Your task to perform on an android device: turn on bluetooth scan Image 0: 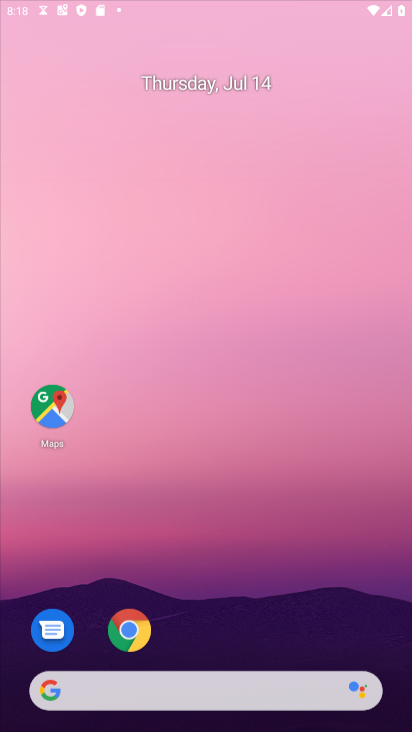
Step 0: press home button
Your task to perform on an android device: turn on bluetooth scan Image 1: 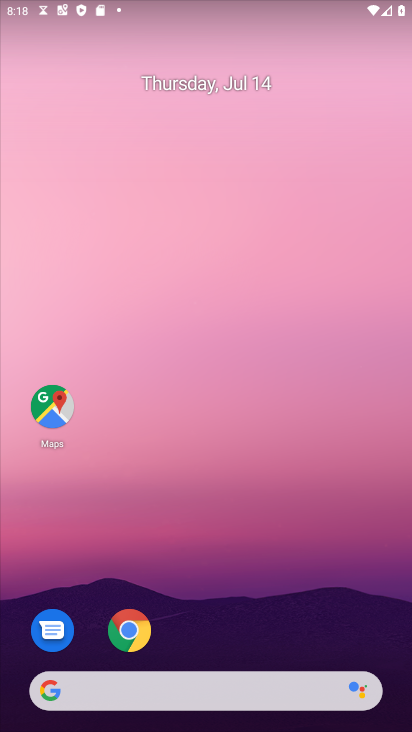
Step 1: drag from (268, 633) to (315, 11)
Your task to perform on an android device: turn on bluetooth scan Image 2: 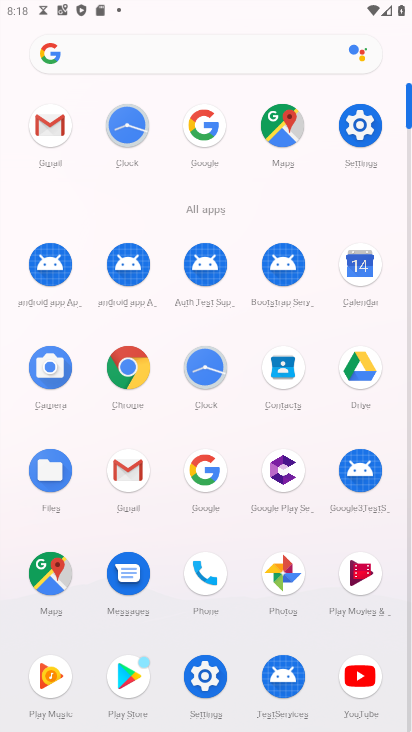
Step 2: click (364, 114)
Your task to perform on an android device: turn on bluetooth scan Image 3: 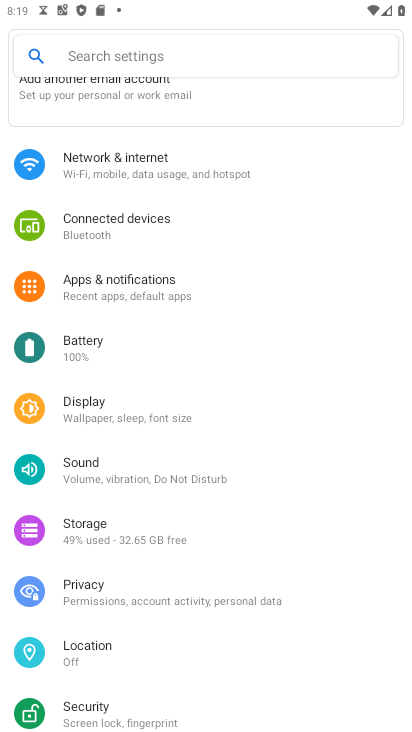
Step 3: click (98, 653)
Your task to perform on an android device: turn on bluetooth scan Image 4: 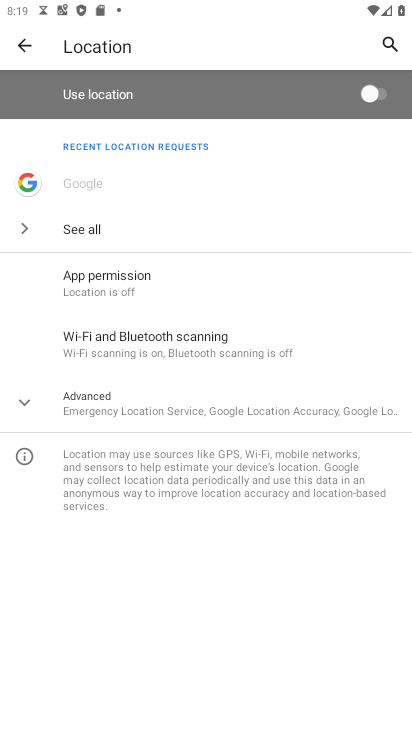
Step 4: click (197, 357)
Your task to perform on an android device: turn on bluetooth scan Image 5: 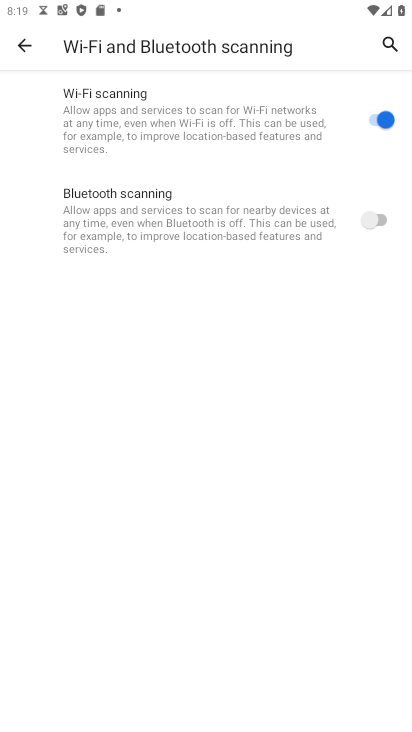
Step 5: click (361, 227)
Your task to perform on an android device: turn on bluetooth scan Image 6: 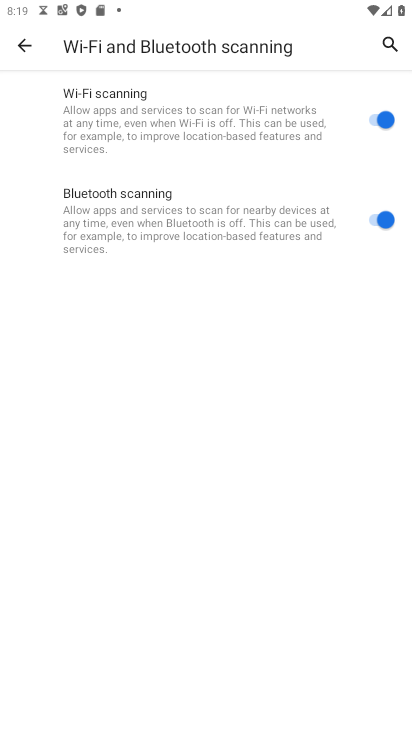
Step 6: task complete